Your task to perform on an android device: delete browsing data in the chrome app Image 0: 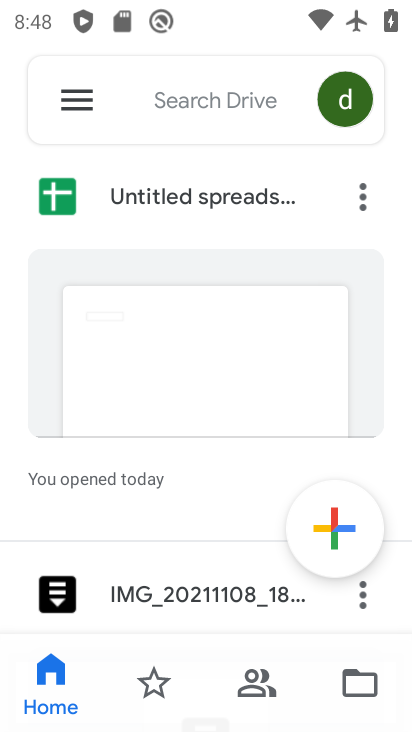
Step 0: press home button
Your task to perform on an android device: delete browsing data in the chrome app Image 1: 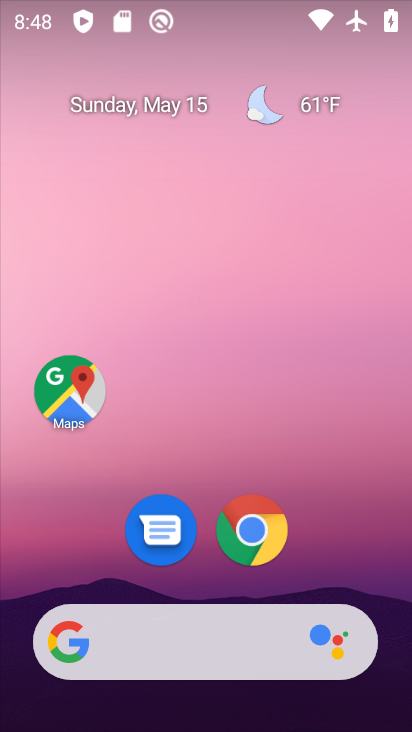
Step 1: click (252, 527)
Your task to perform on an android device: delete browsing data in the chrome app Image 2: 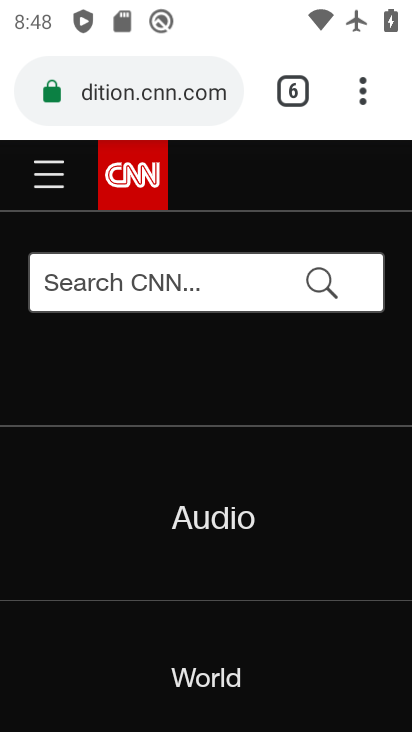
Step 2: click (360, 101)
Your task to perform on an android device: delete browsing data in the chrome app Image 3: 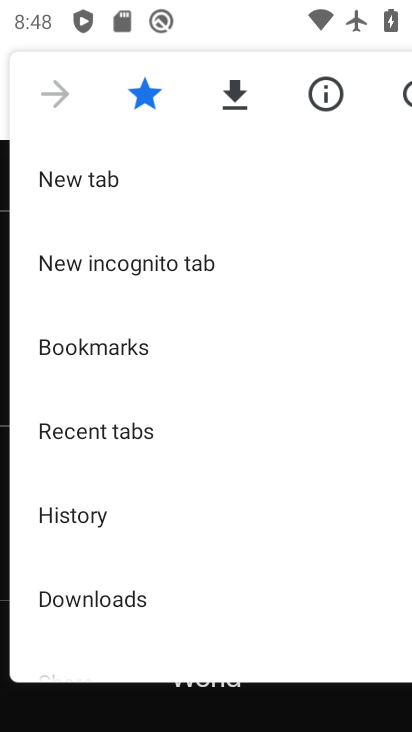
Step 3: click (68, 511)
Your task to perform on an android device: delete browsing data in the chrome app Image 4: 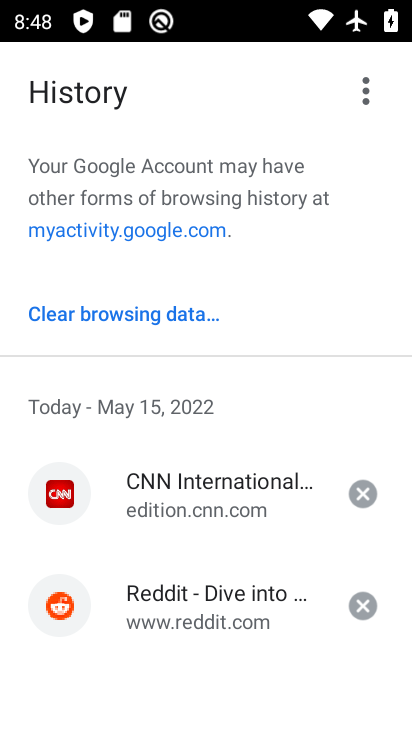
Step 4: click (120, 314)
Your task to perform on an android device: delete browsing data in the chrome app Image 5: 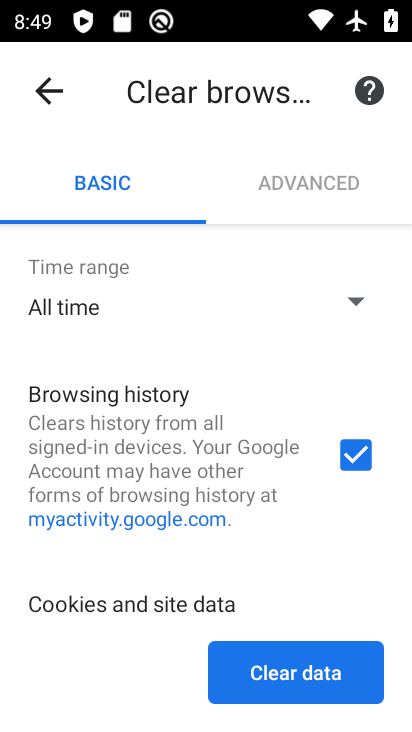
Step 5: drag from (213, 566) to (248, 210)
Your task to perform on an android device: delete browsing data in the chrome app Image 6: 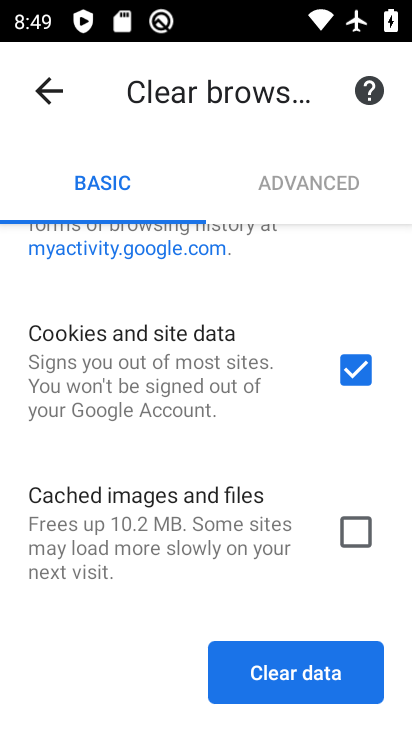
Step 6: click (360, 360)
Your task to perform on an android device: delete browsing data in the chrome app Image 7: 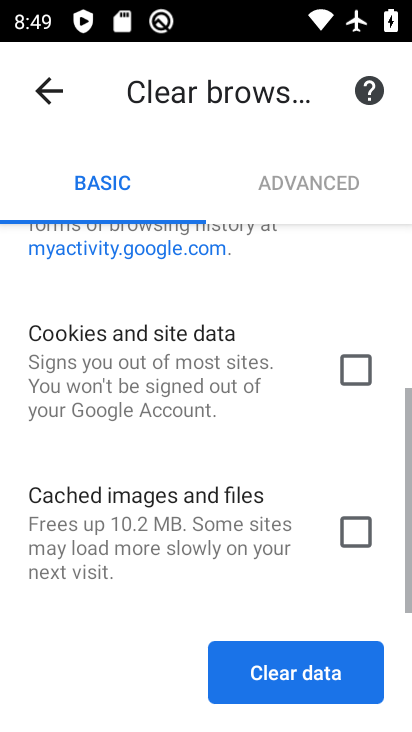
Step 7: click (304, 676)
Your task to perform on an android device: delete browsing data in the chrome app Image 8: 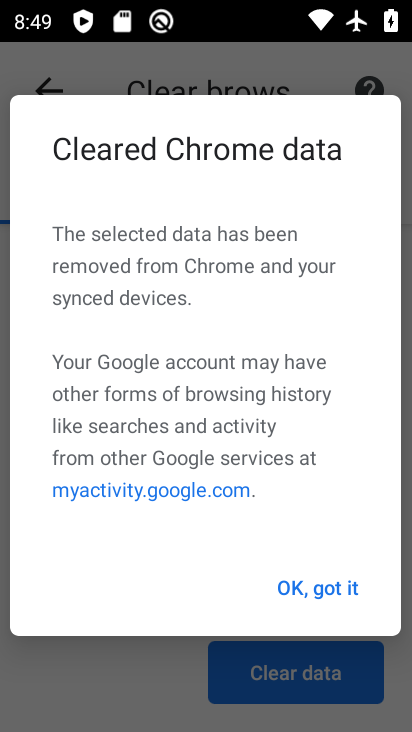
Step 8: click (329, 586)
Your task to perform on an android device: delete browsing data in the chrome app Image 9: 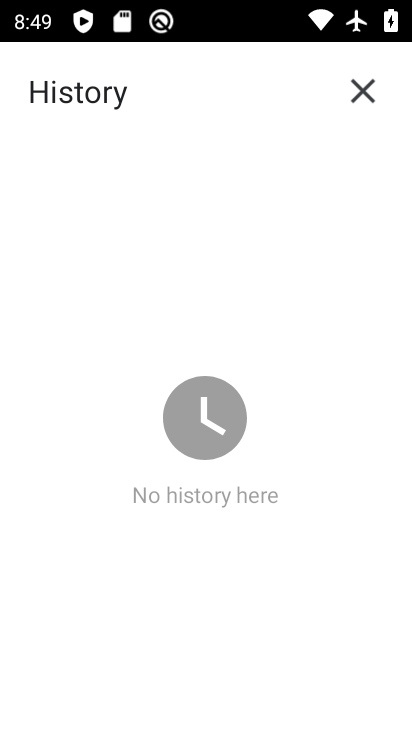
Step 9: task complete